Your task to perform on an android device: turn on improve location accuracy Image 0: 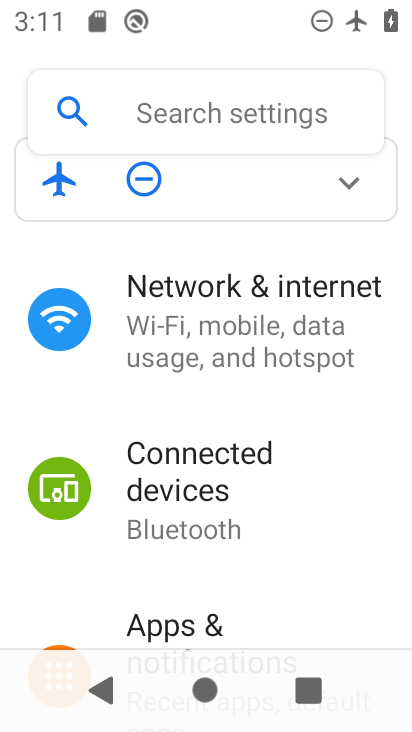
Step 0: drag from (332, 558) to (316, 234)
Your task to perform on an android device: turn on improve location accuracy Image 1: 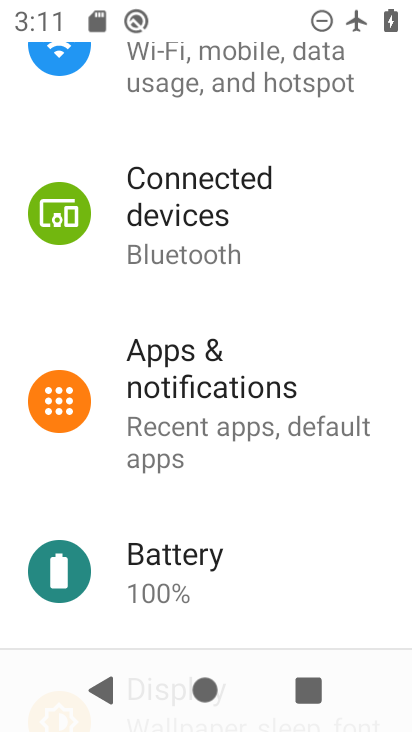
Step 1: drag from (285, 585) to (268, 242)
Your task to perform on an android device: turn on improve location accuracy Image 2: 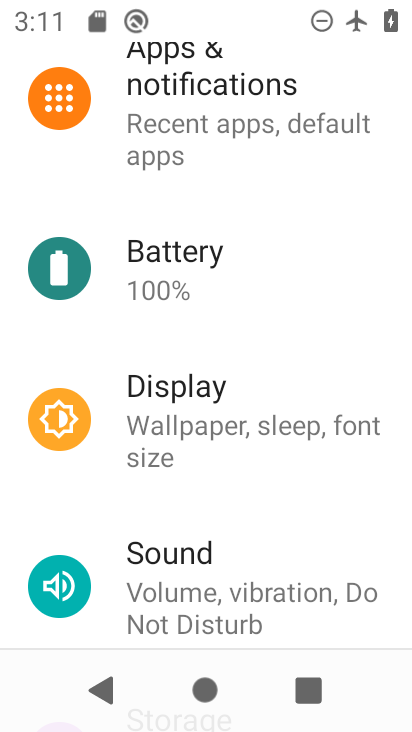
Step 2: drag from (213, 507) to (235, 140)
Your task to perform on an android device: turn on improve location accuracy Image 3: 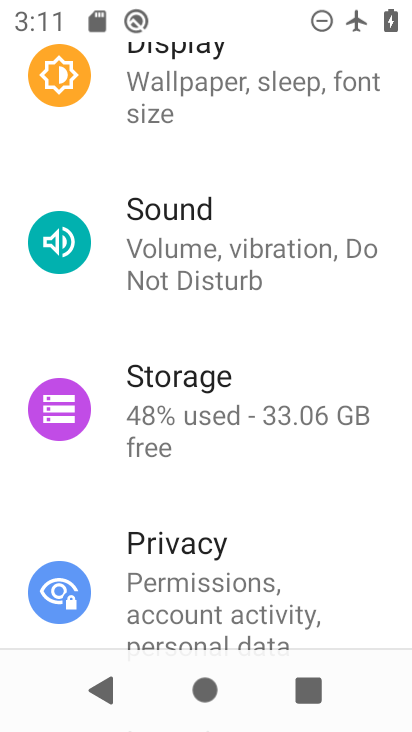
Step 3: drag from (256, 530) to (247, 241)
Your task to perform on an android device: turn on improve location accuracy Image 4: 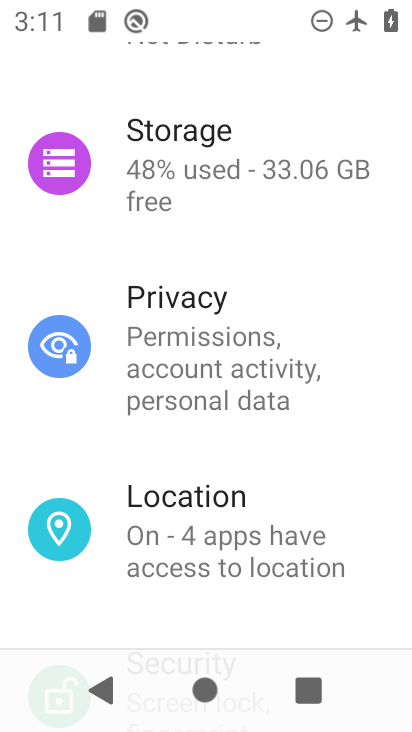
Step 4: click (198, 539)
Your task to perform on an android device: turn on improve location accuracy Image 5: 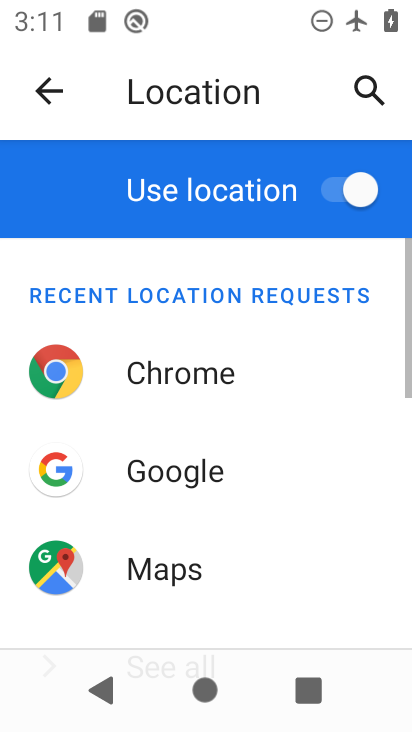
Step 5: drag from (279, 599) to (277, 225)
Your task to perform on an android device: turn on improve location accuracy Image 6: 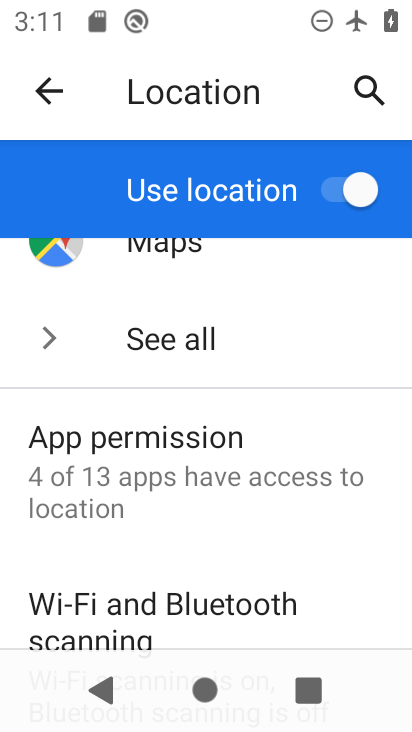
Step 6: drag from (247, 528) to (236, 227)
Your task to perform on an android device: turn on improve location accuracy Image 7: 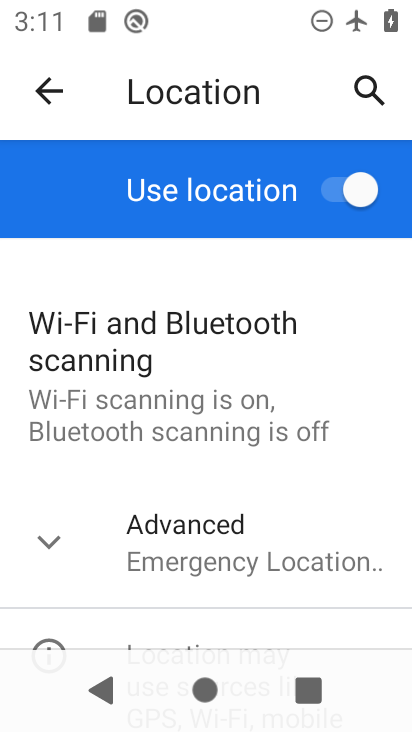
Step 7: click (49, 547)
Your task to perform on an android device: turn on improve location accuracy Image 8: 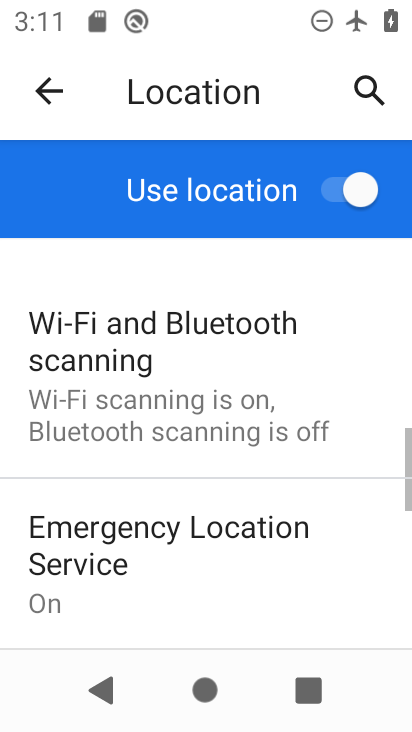
Step 8: drag from (184, 542) to (191, 165)
Your task to perform on an android device: turn on improve location accuracy Image 9: 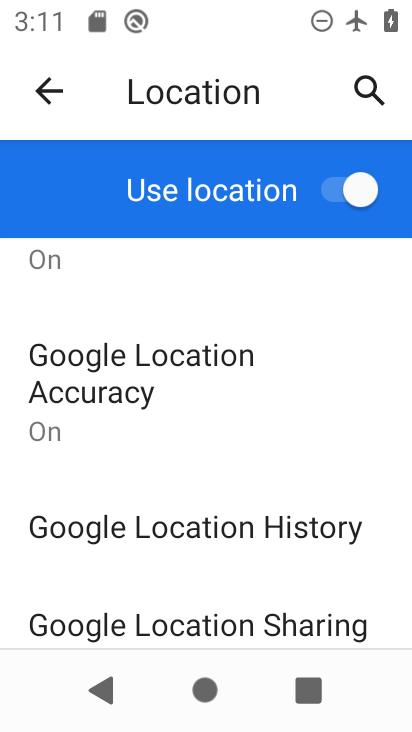
Step 9: drag from (179, 533) to (200, 452)
Your task to perform on an android device: turn on improve location accuracy Image 10: 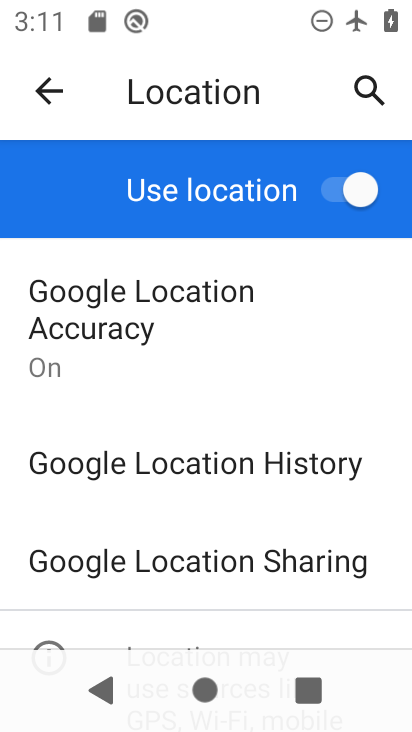
Step 10: click (86, 333)
Your task to perform on an android device: turn on improve location accuracy Image 11: 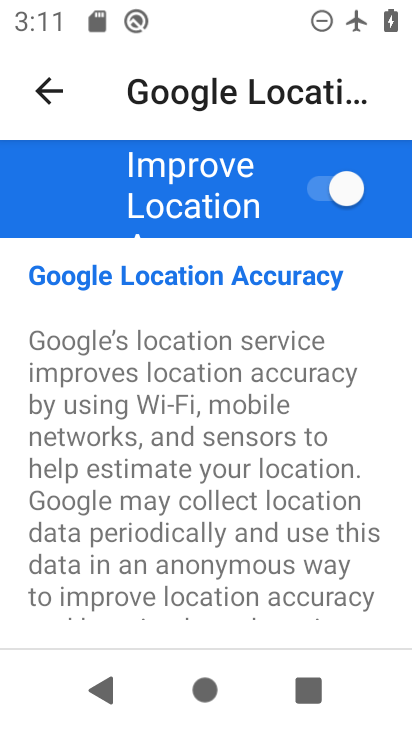
Step 11: task complete